Your task to perform on an android device: empty trash in the gmail app Image 0: 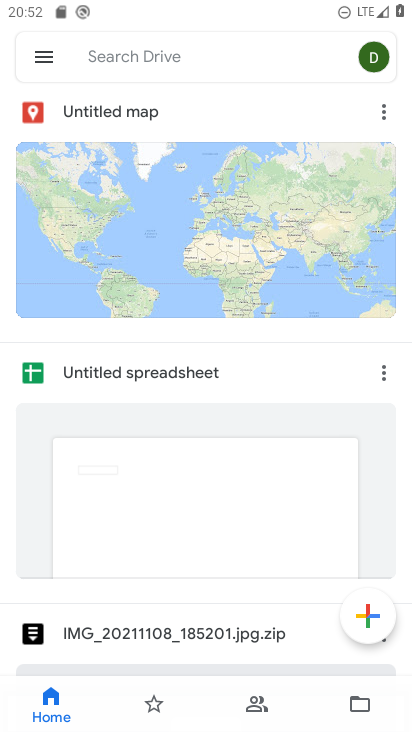
Step 0: press home button
Your task to perform on an android device: empty trash in the gmail app Image 1: 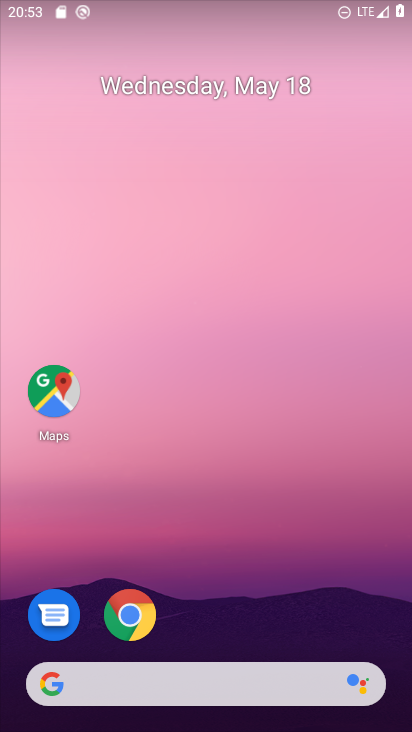
Step 1: drag from (196, 671) to (207, 86)
Your task to perform on an android device: empty trash in the gmail app Image 2: 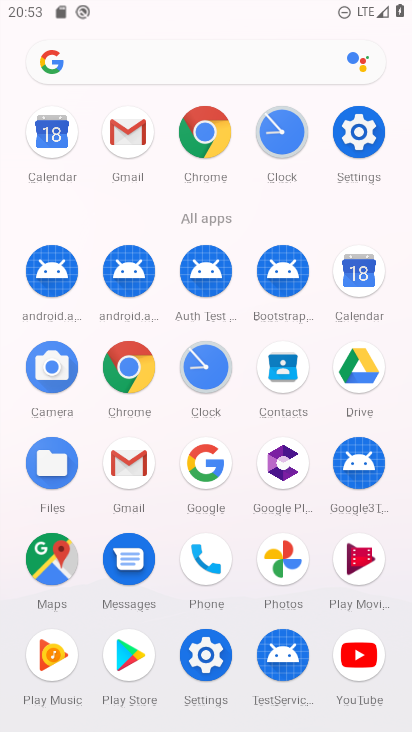
Step 2: click (357, 151)
Your task to perform on an android device: empty trash in the gmail app Image 3: 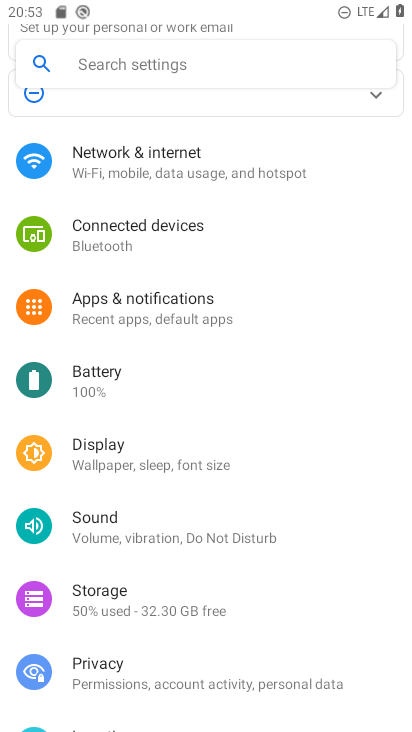
Step 3: press home button
Your task to perform on an android device: empty trash in the gmail app Image 4: 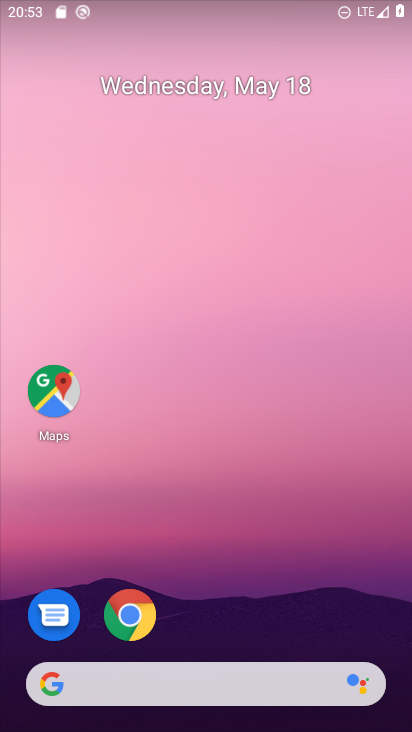
Step 4: drag from (214, 682) to (189, 177)
Your task to perform on an android device: empty trash in the gmail app Image 5: 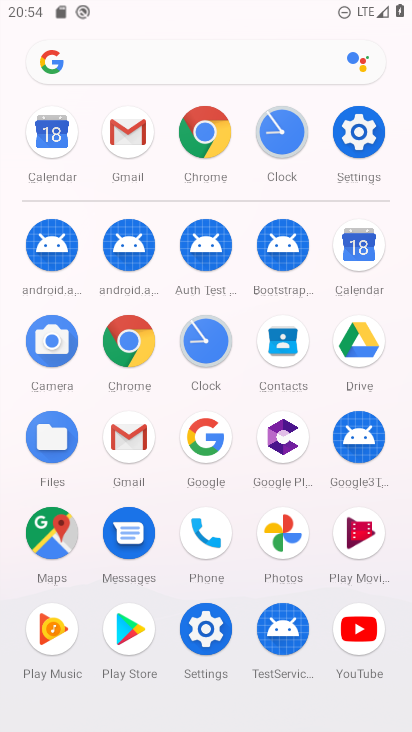
Step 5: click (111, 465)
Your task to perform on an android device: empty trash in the gmail app Image 6: 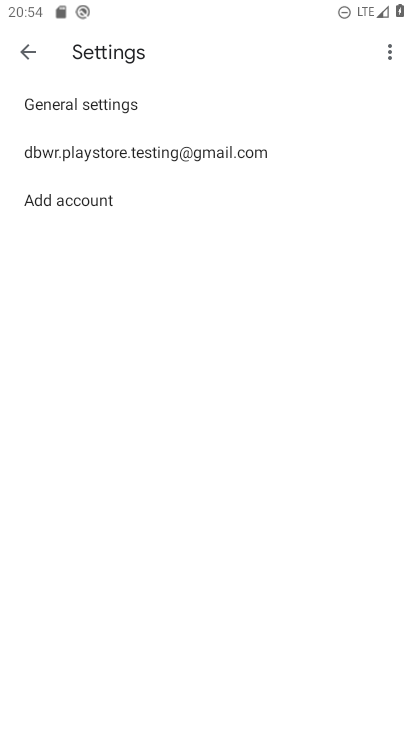
Step 6: click (31, 52)
Your task to perform on an android device: empty trash in the gmail app Image 7: 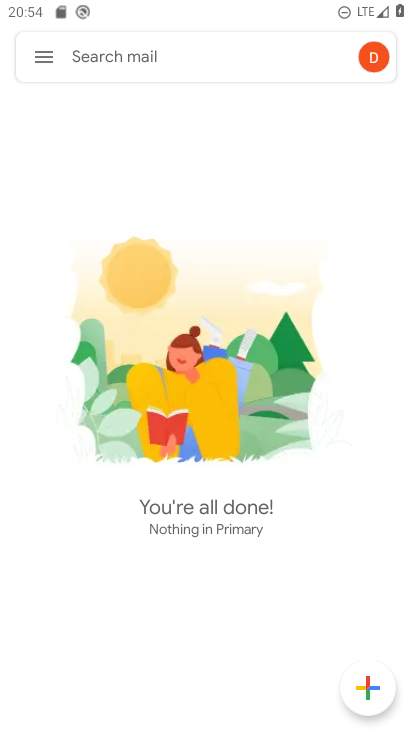
Step 7: click (31, 52)
Your task to perform on an android device: empty trash in the gmail app Image 8: 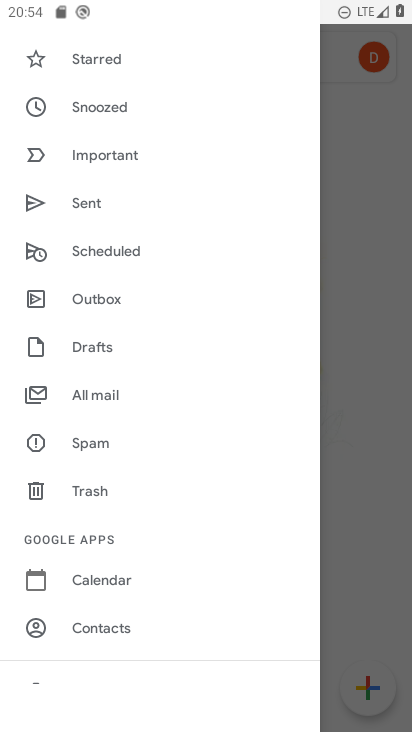
Step 8: click (90, 483)
Your task to perform on an android device: empty trash in the gmail app Image 9: 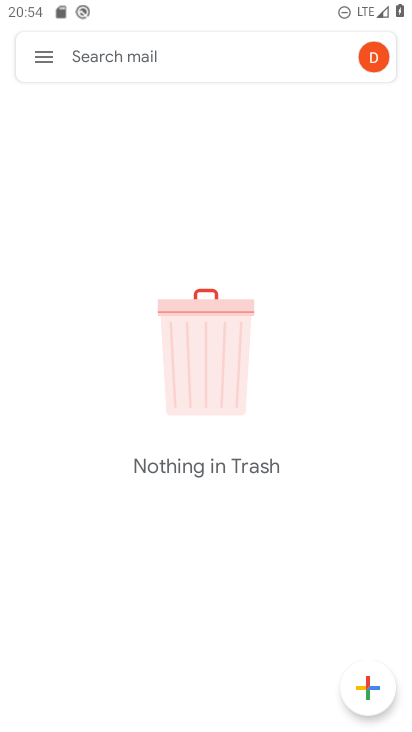
Step 9: task complete